Your task to perform on an android device: turn on location history Image 0: 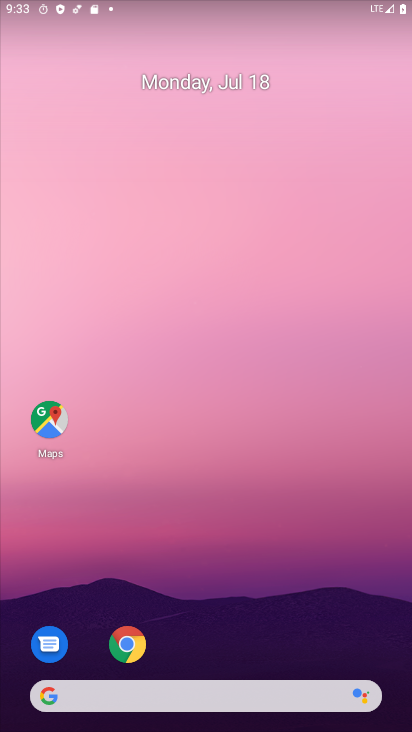
Step 0: press home button
Your task to perform on an android device: turn on location history Image 1: 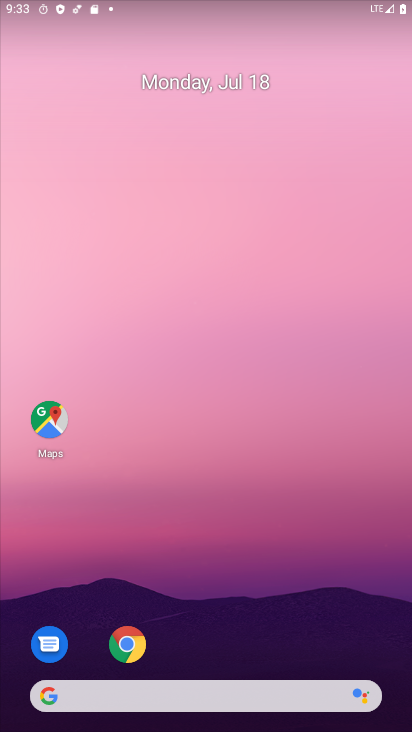
Step 1: drag from (204, 667) to (167, 66)
Your task to perform on an android device: turn on location history Image 2: 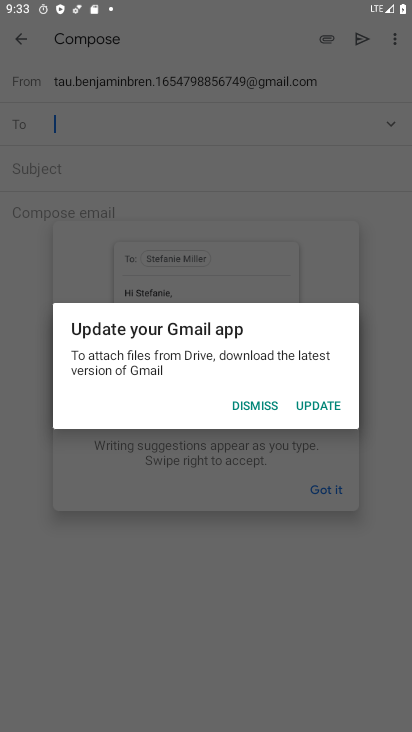
Step 2: press home button
Your task to perform on an android device: turn on location history Image 3: 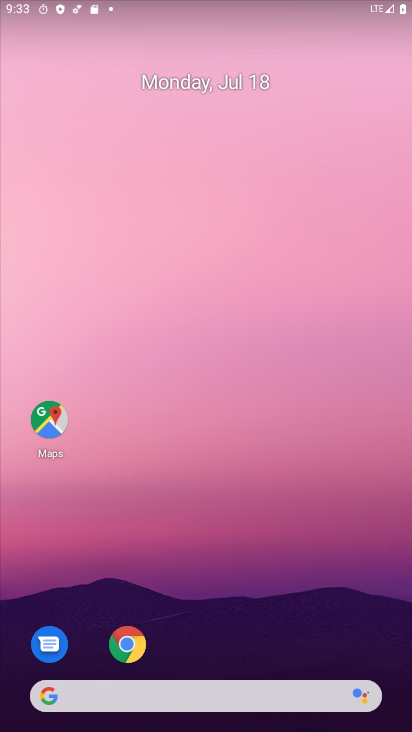
Step 3: drag from (185, 648) to (180, 13)
Your task to perform on an android device: turn on location history Image 4: 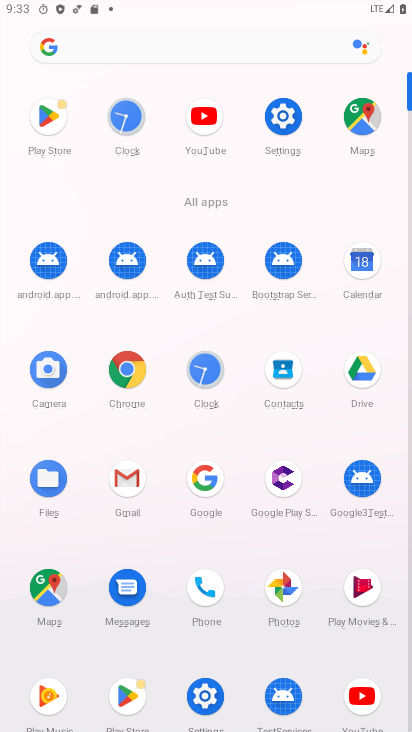
Step 4: click (281, 108)
Your task to perform on an android device: turn on location history Image 5: 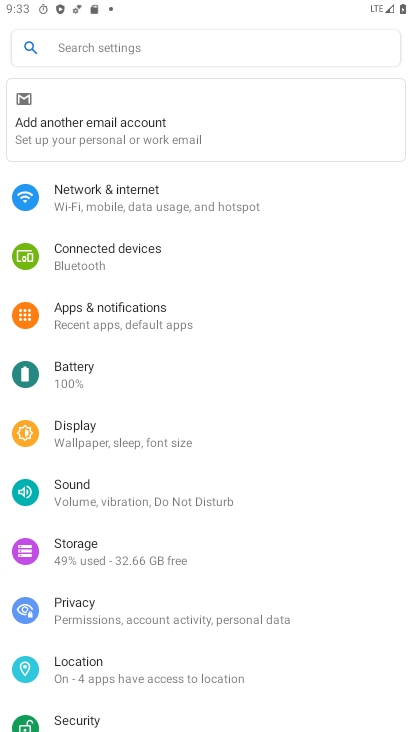
Step 5: click (119, 669)
Your task to perform on an android device: turn on location history Image 6: 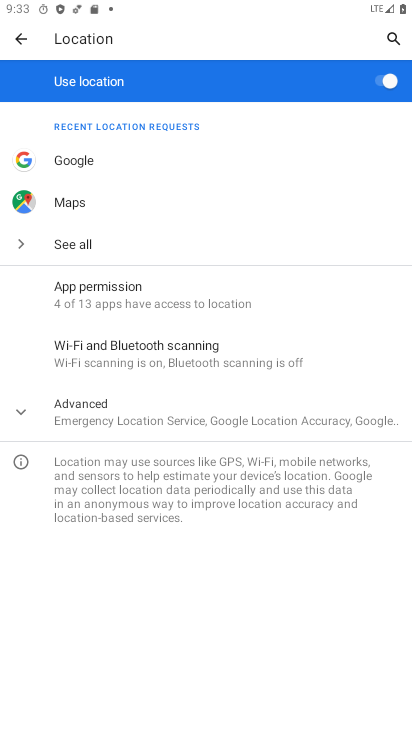
Step 6: click (22, 403)
Your task to perform on an android device: turn on location history Image 7: 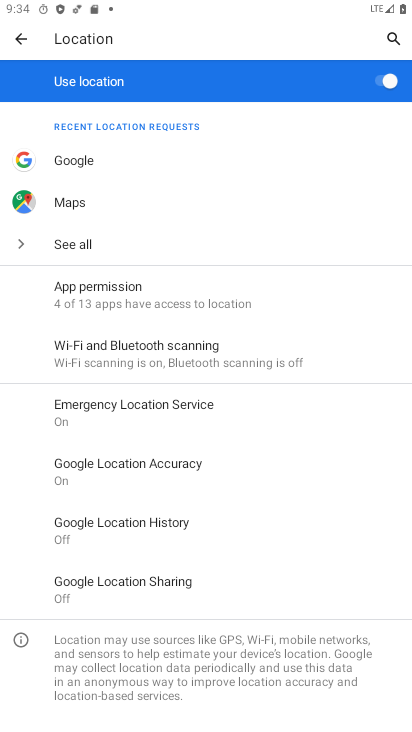
Step 7: click (153, 526)
Your task to perform on an android device: turn on location history Image 8: 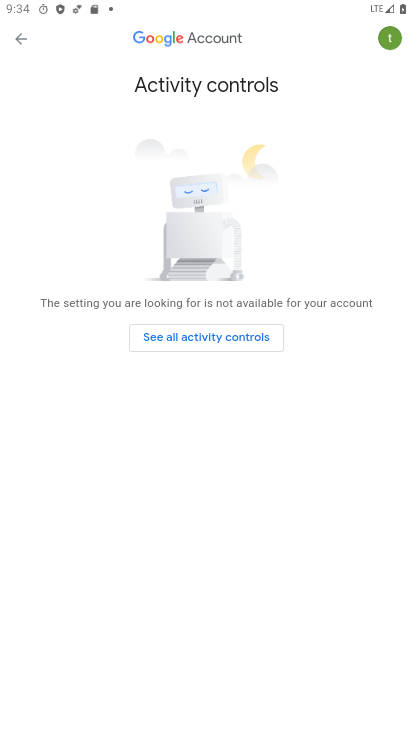
Step 8: click (194, 334)
Your task to perform on an android device: turn on location history Image 9: 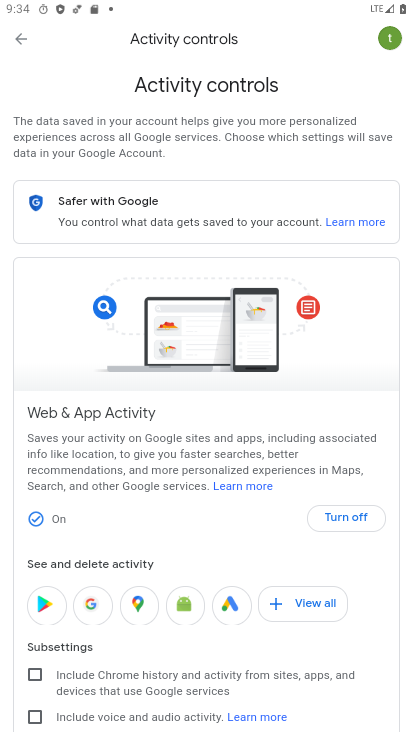
Step 9: task complete